Your task to perform on an android device: show emergency info Image 0: 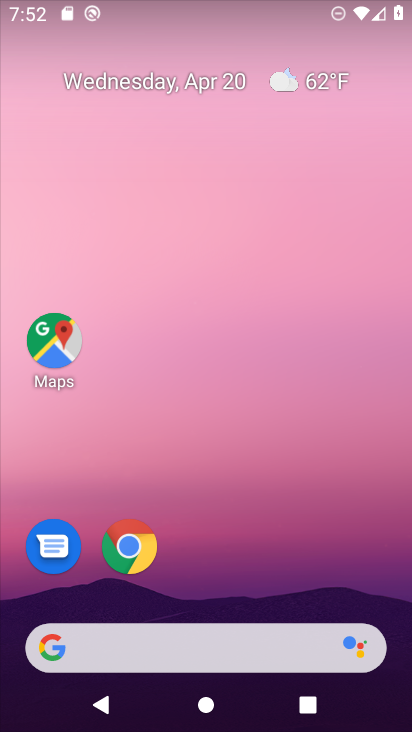
Step 0: drag from (250, 561) to (281, 97)
Your task to perform on an android device: show emergency info Image 1: 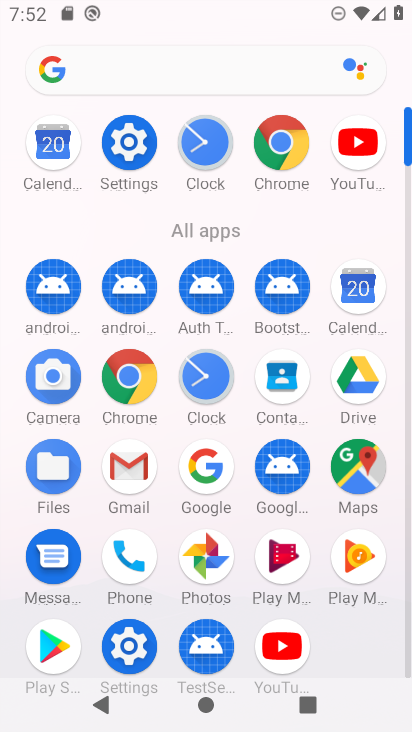
Step 1: click (133, 150)
Your task to perform on an android device: show emergency info Image 2: 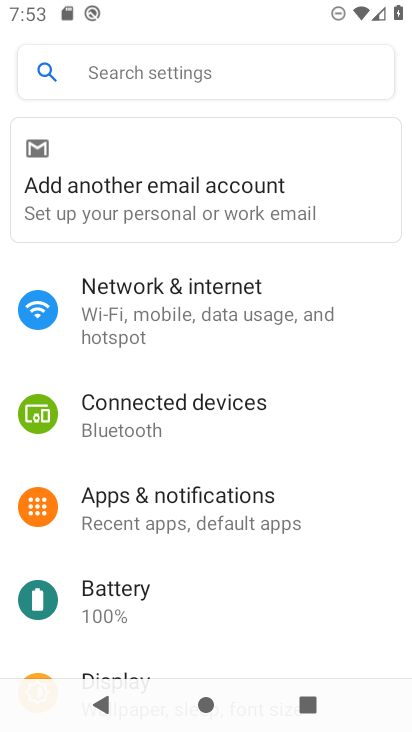
Step 2: drag from (229, 590) to (262, 245)
Your task to perform on an android device: show emergency info Image 3: 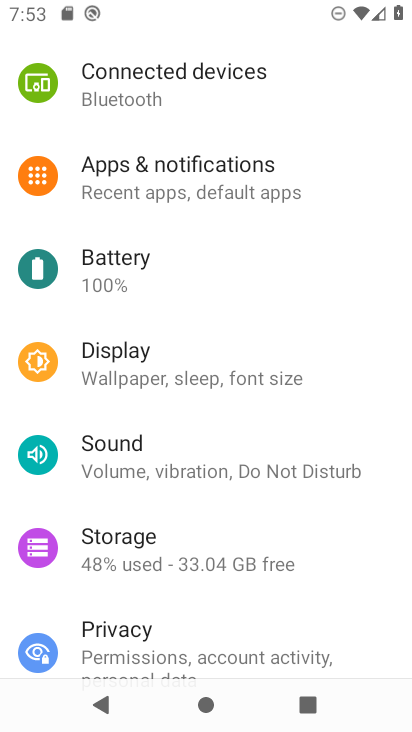
Step 3: drag from (218, 602) to (233, 97)
Your task to perform on an android device: show emergency info Image 4: 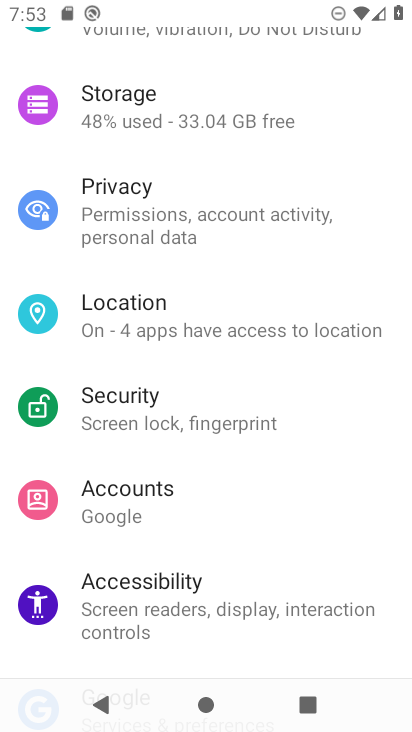
Step 4: drag from (226, 541) to (251, 101)
Your task to perform on an android device: show emergency info Image 5: 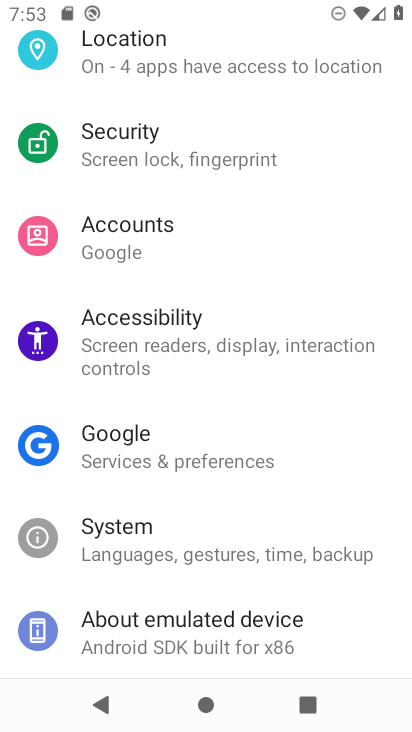
Step 5: click (196, 641)
Your task to perform on an android device: show emergency info Image 6: 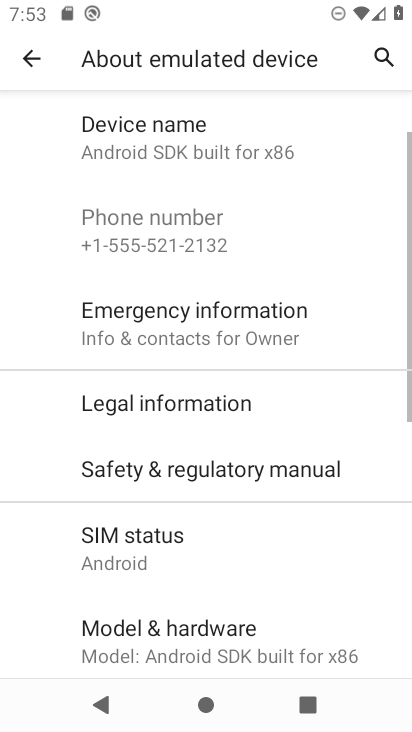
Step 6: click (229, 326)
Your task to perform on an android device: show emergency info Image 7: 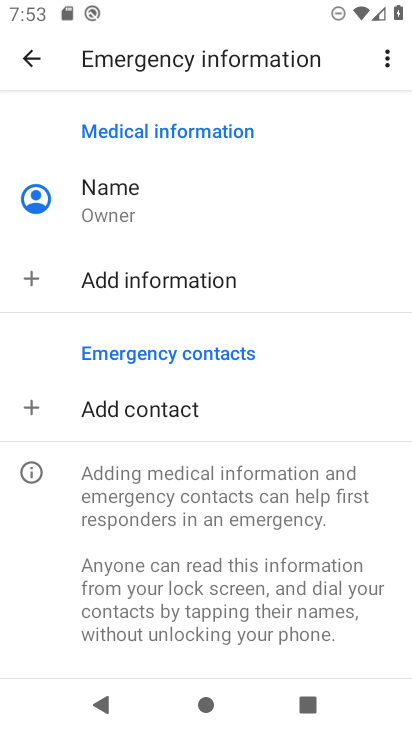
Step 7: task complete